Your task to perform on an android device: Search for sushi restaurants on Maps Image 0: 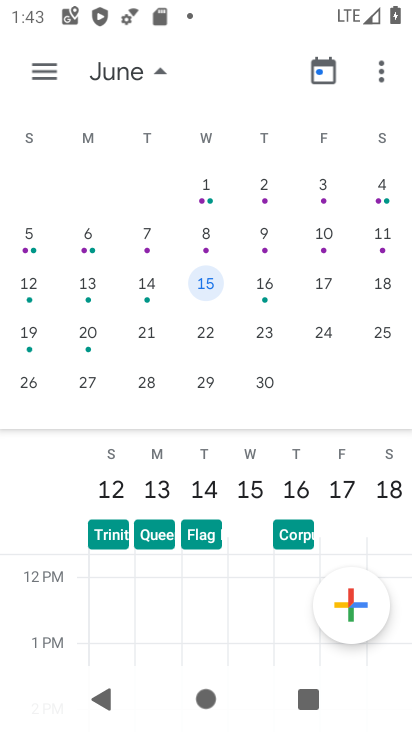
Step 0: press home button
Your task to perform on an android device: Search for sushi restaurants on Maps Image 1: 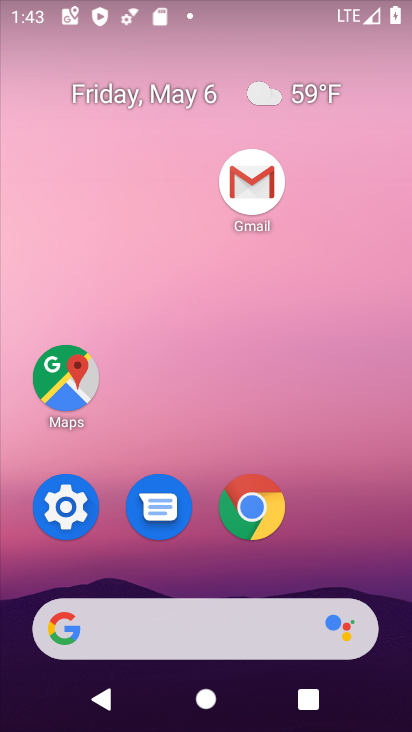
Step 1: click (67, 399)
Your task to perform on an android device: Search for sushi restaurants on Maps Image 2: 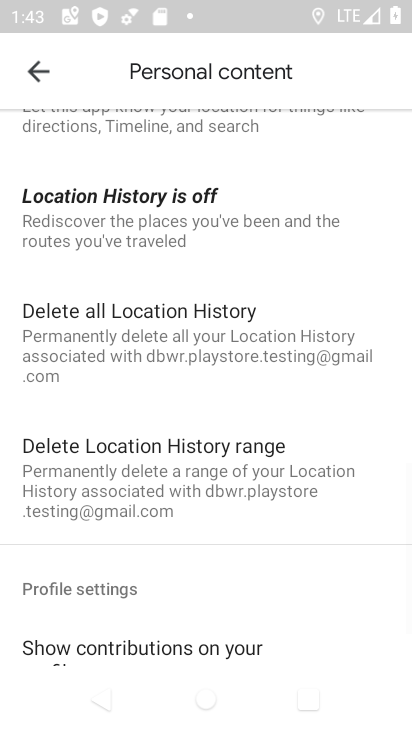
Step 2: click (39, 67)
Your task to perform on an android device: Search for sushi restaurants on Maps Image 3: 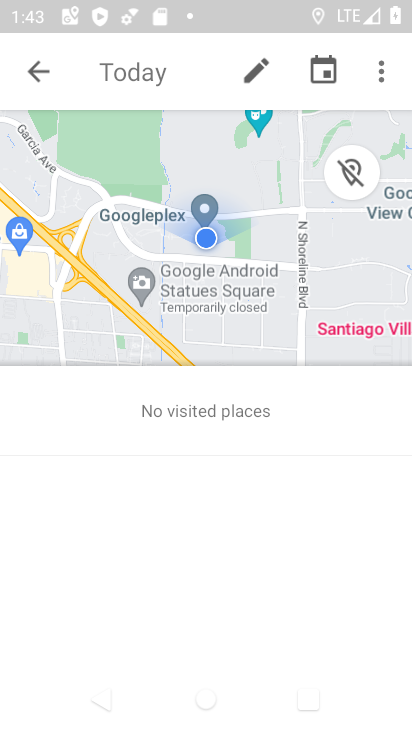
Step 3: click (38, 74)
Your task to perform on an android device: Search for sushi restaurants on Maps Image 4: 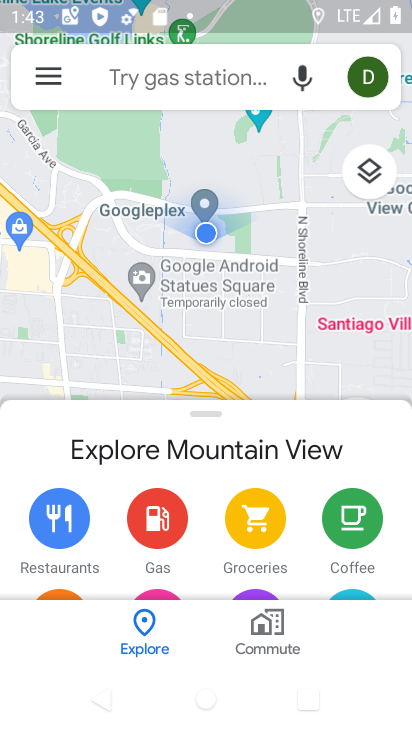
Step 4: click (164, 76)
Your task to perform on an android device: Search for sushi restaurants on Maps Image 5: 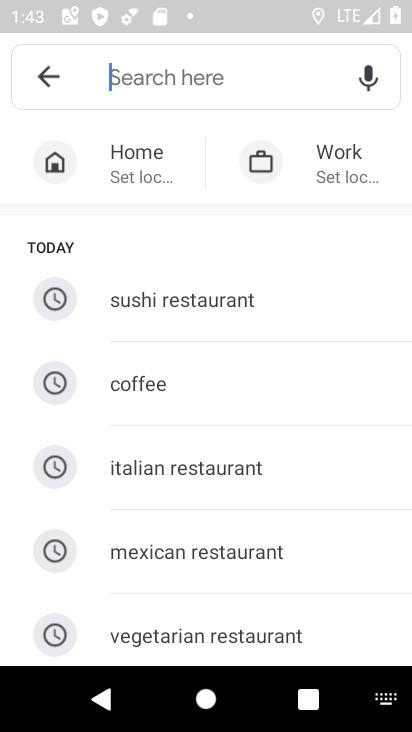
Step 5: click (196, 297)
Your task to perform on an android device: Search for sushi restaurants on Maps Image 6: 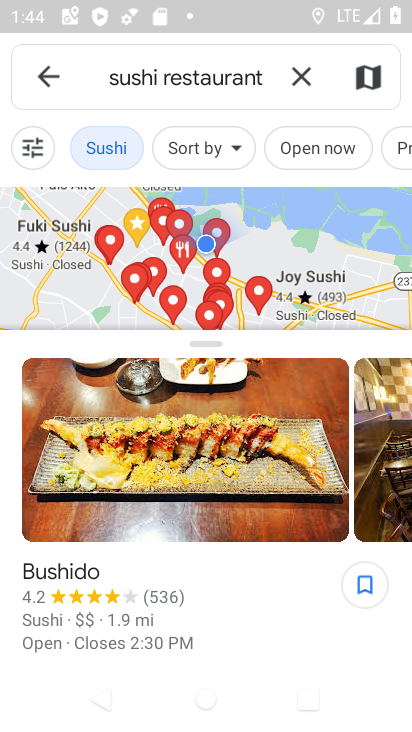
Step 6: task complete